Your task to perform on an android device: See recent photos Image 0: 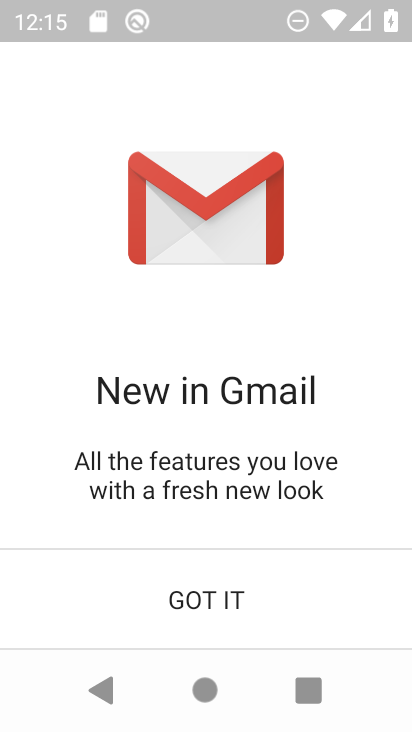
Step 0: press back button
Your task to perform on an android device: See recent photos Image 1: 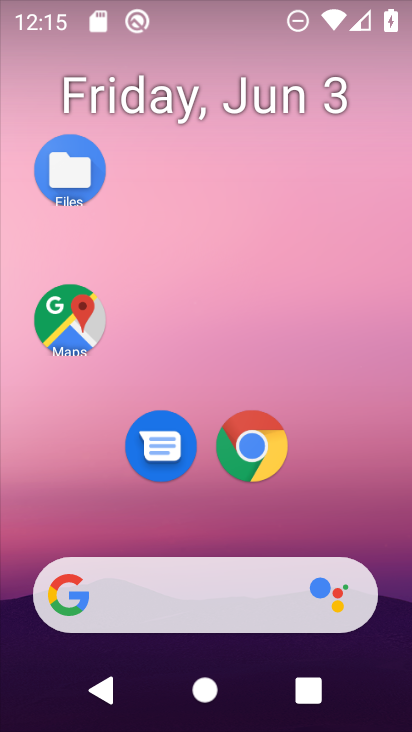
Step 1: drag from (252, 687) to (127, 43)
Your task to perform on an android device: See recent photos Image 2: 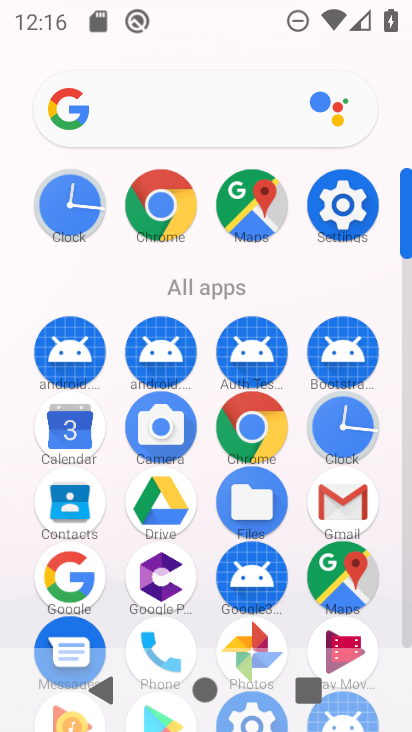
Step 2: click (258, 646)
Your task to perform on an android device: See recent photos Image 3: 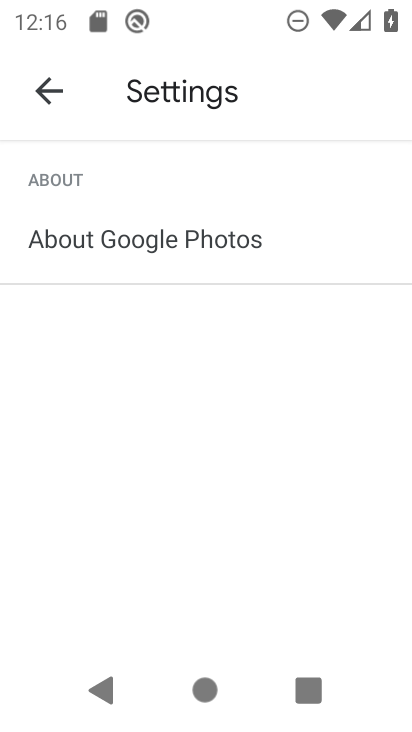
Step 3: drag from (273, 622) to (236, 322)
Your task to perform on an android device: See recent photos Image 4: 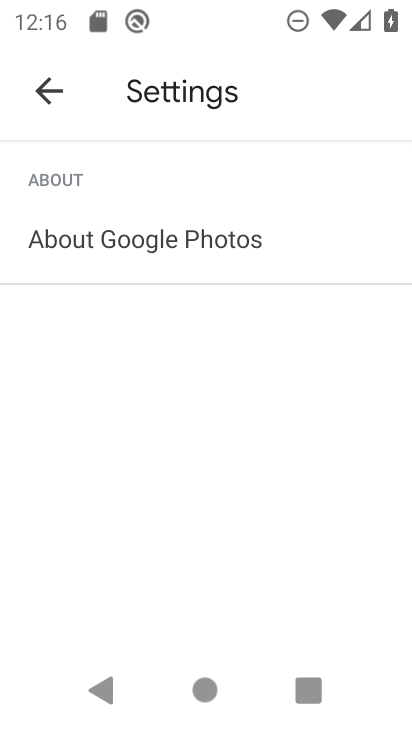
Step 4: click (261, 624)
Your task to perform on an android device: See recent photos Image 5: 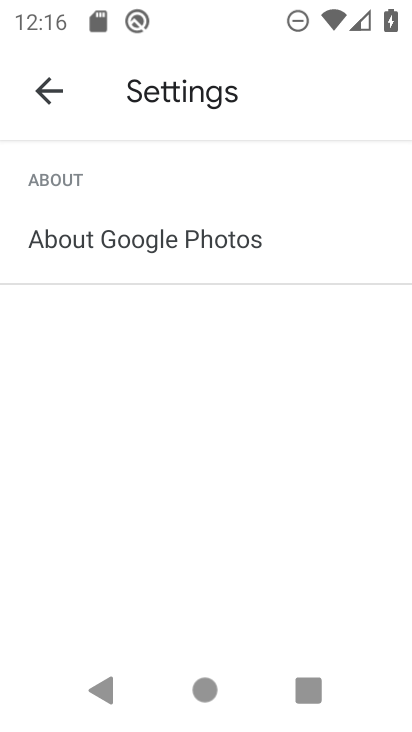
Step 5: click (47, 86)
Your task to perform on an android device: See recent photos Image 6: 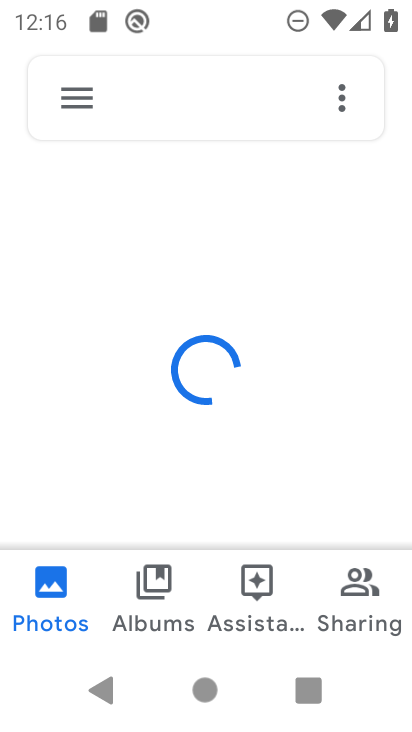
Step 6: task complete